Your task to perform on an android device: show emergency info Image 0: 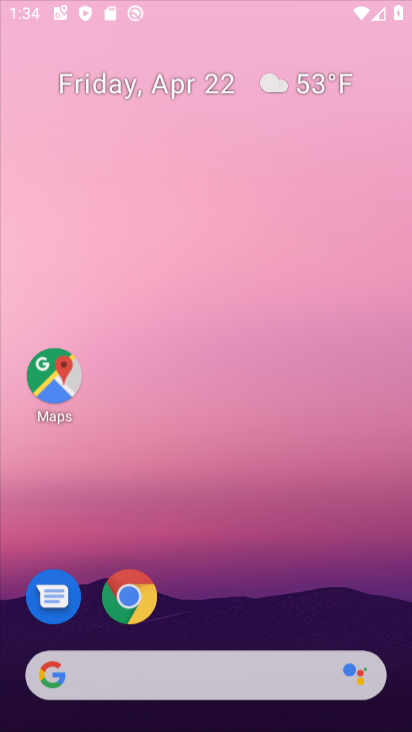
Step 0: click (271, 77)
Your task to perform on an android device: show emergency info Image 1: 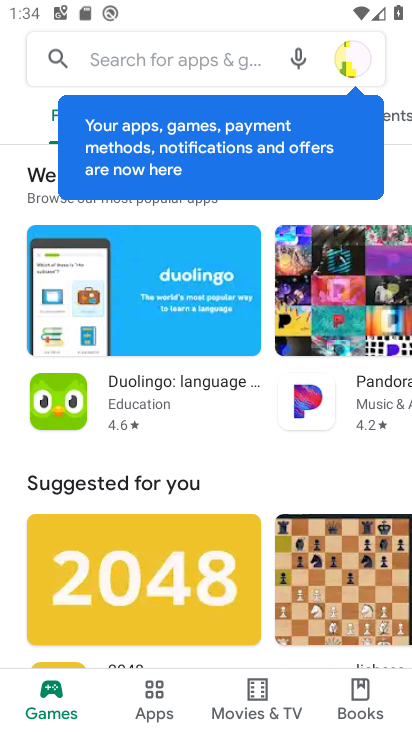
Step 1: press home button
Your task to perform on an android device: show emergency info Image 2: 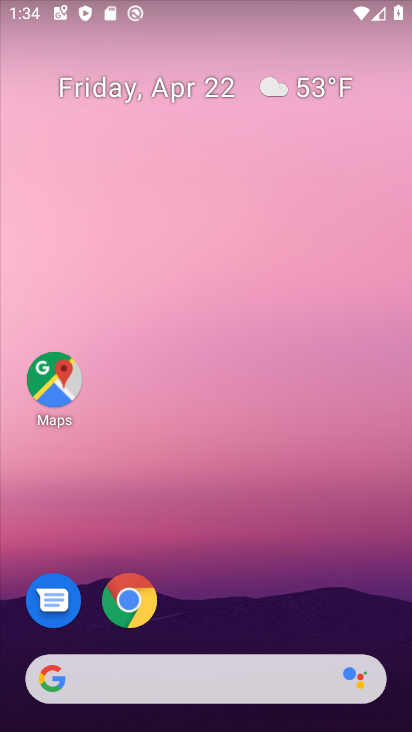
Step 2: drag from (198, 596) to (179, 127)
Your task to perform on an android device: show emergency info Image 3: 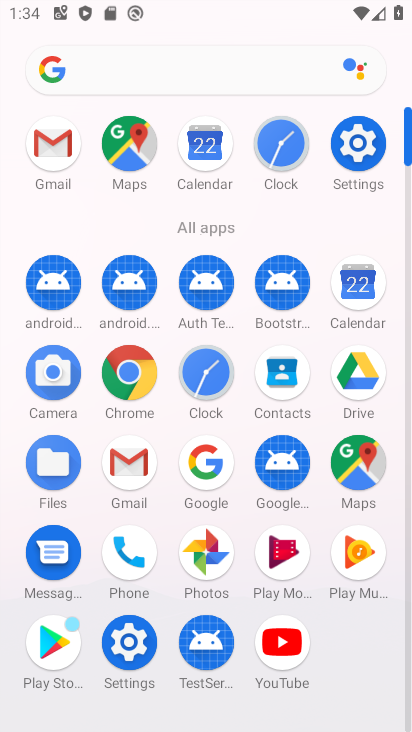
Step 3: click (133, 643)
Your task to perform on an android device: show emergency info Image 4: 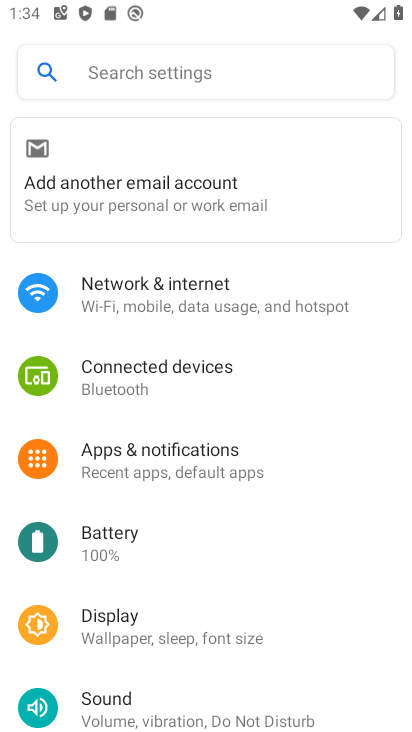
Step 4: drag from (172, 574) to (150, 161)
Your task to perform on an android device: show emergency info Image 5: 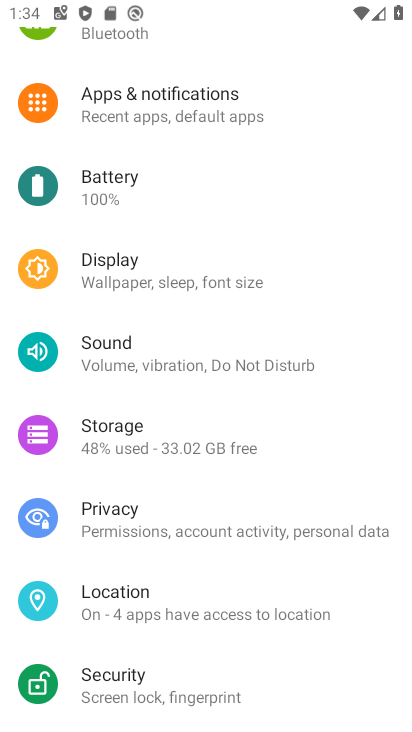
Step 5: drag from (228, 670) to (212, 251)
Your task to perform on an android device: show emergency info Image 6: 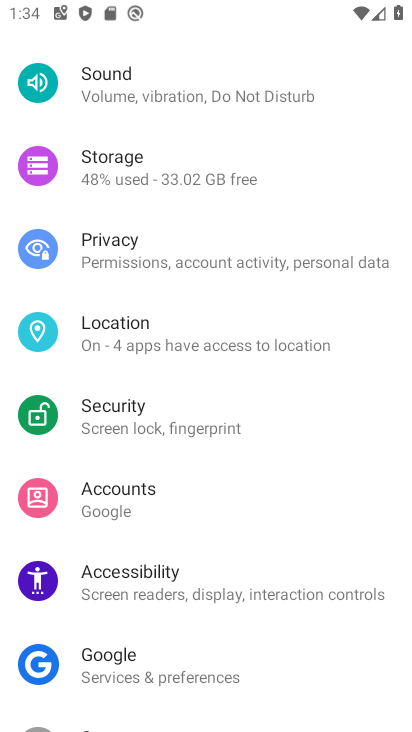
Step 6: drag from (200, 666) to (205, 169)
Your task to perform on an android device: show emergency info Image 7: 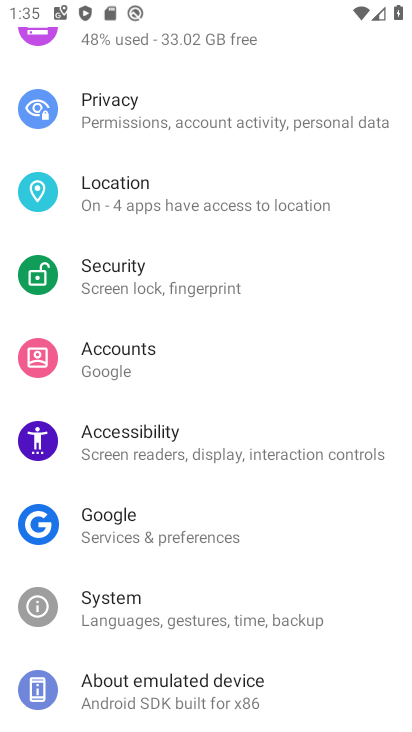
Step 7: click (192, 694)
Your task to perform on an android device: show emergency info Image 8: 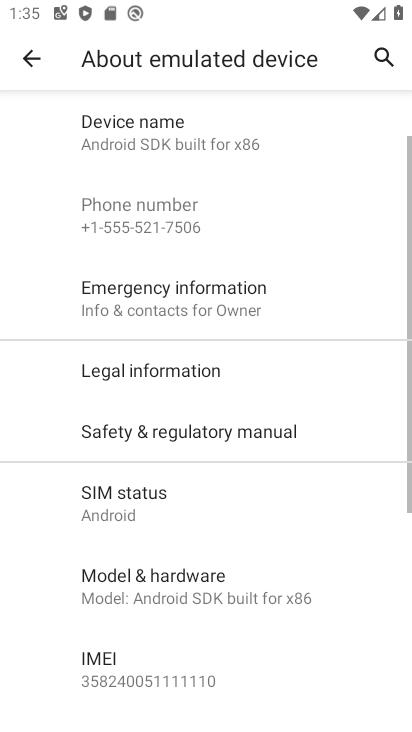
Step 8: task complete